Your task to perform on an android device: Open Google Maps and go to "Timeline" Image 0: 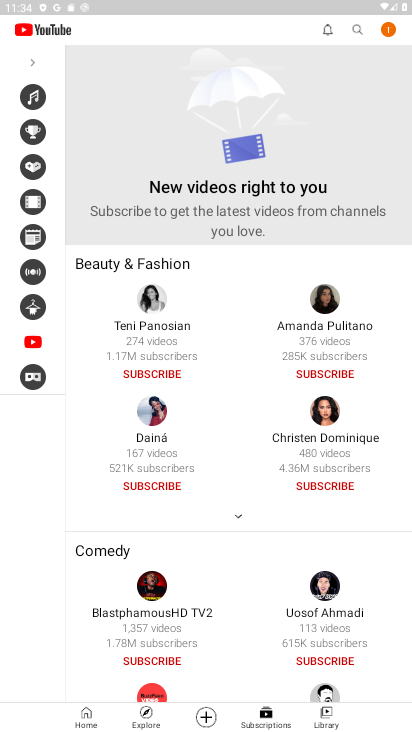
Step 0: press home button
Your task to perform on an android device: Open Google Maps and go to "Timeline" Image 1: 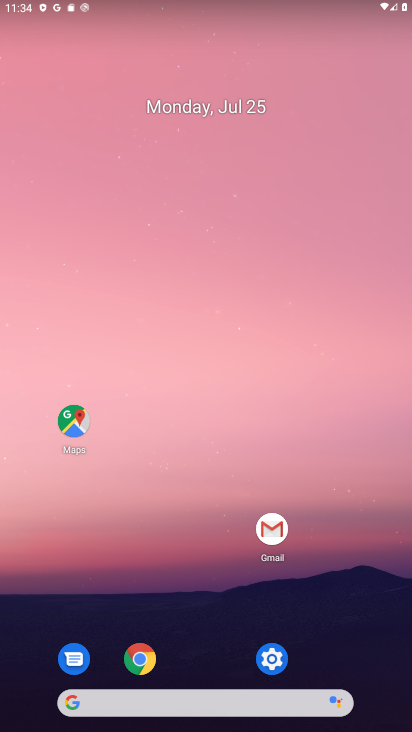
Step 1: click (68, 421)
Your task to perform on an android device: Open Google Maps and go to "Timeline" Image 2: 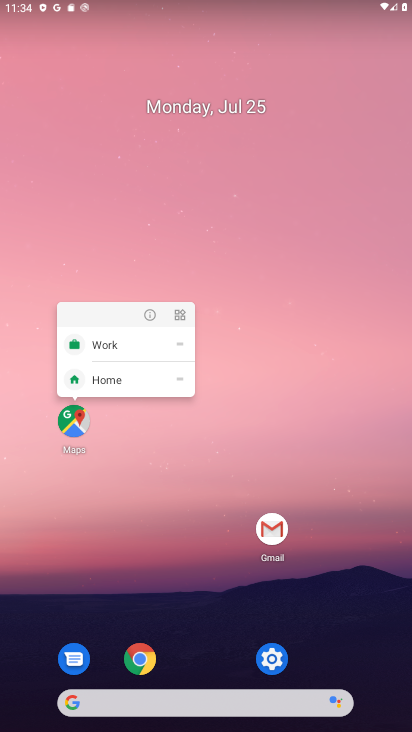
Step 2: click (67, 436)
Your task to perform on an android device: Open Google Maps and go to "Timeline" Image 3: 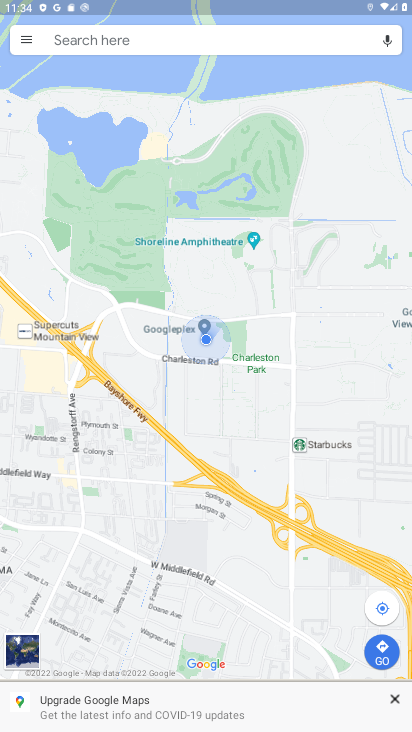
Step 3: click (27, 37)
Your task to perform on an android device: Open Google Maps and go to "Timeline" Image 4: 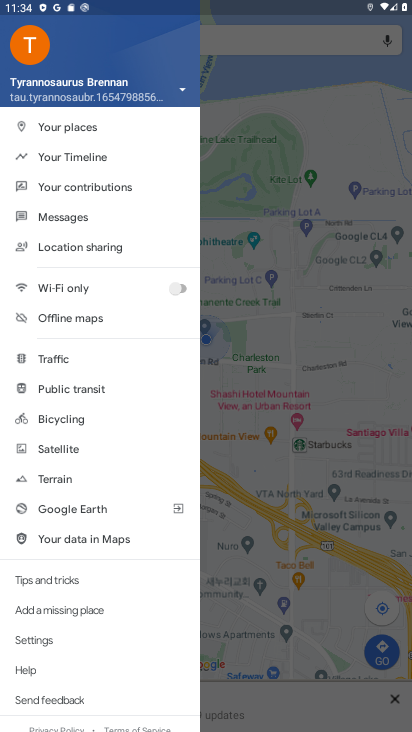
Step 4: click (79, 152)
Your task to perform on an android device: Open Google Maps and go to "Timeline" Image 5: 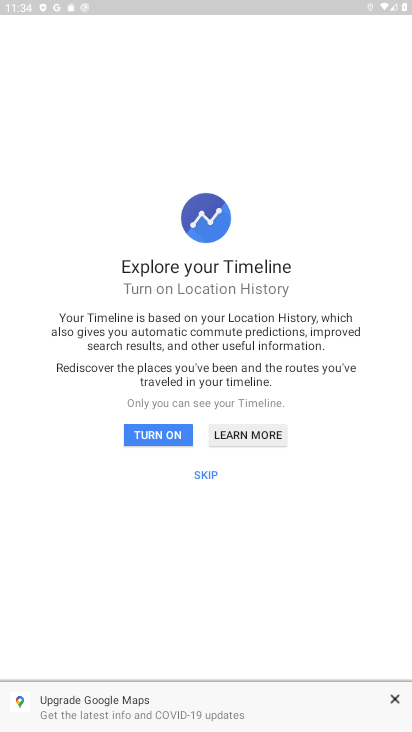
Step 5: click (204, 469)
Your task to perform on an android device: Open Google Maps and go to "Timeline" Image 6: 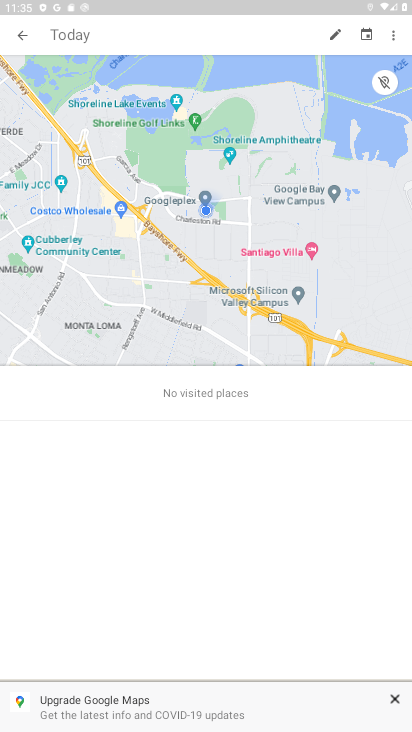
Step 6: task complete